Your task to perform on an android device: search for starred emails in the gmail app Image 0: 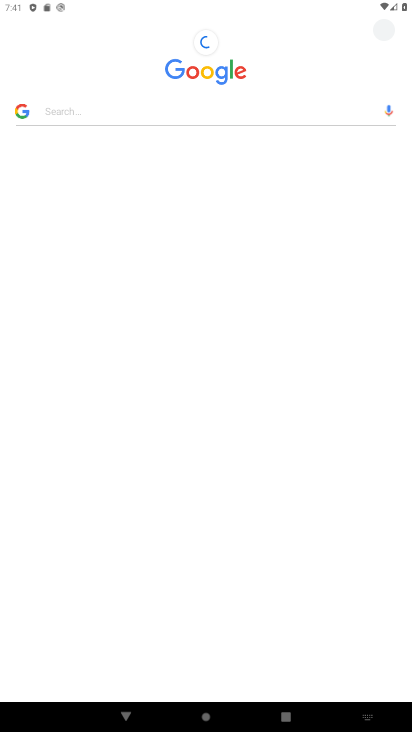
Step 0: press home button
Your task to perform on an android device: search for starred emails in the gmail app Image 1: 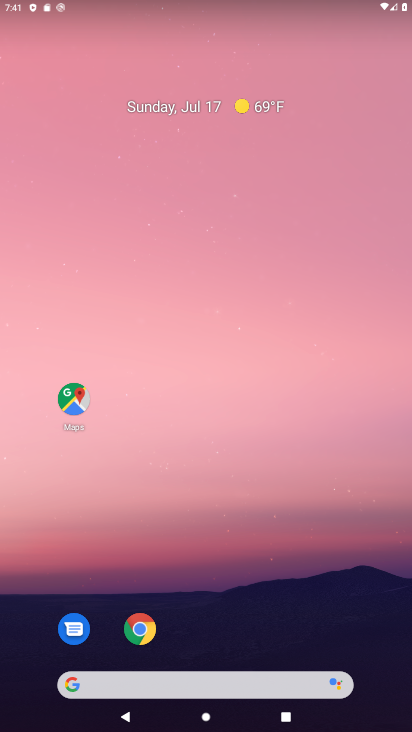
Step 1: drag from (299, 597) to (323, 168)
Your task to perform on an android device: search for starred emails in the gmail app Image 2: 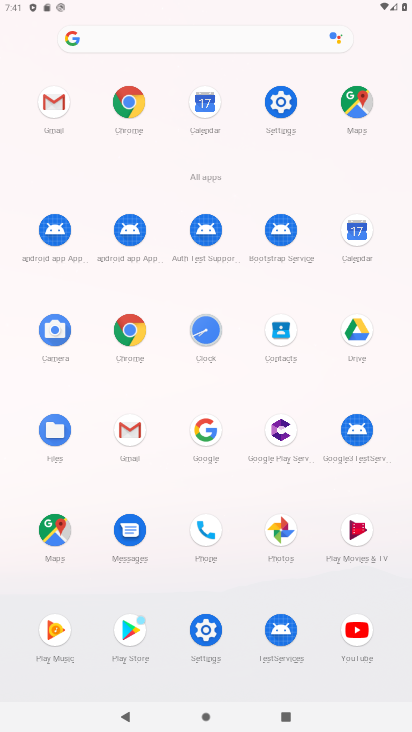
Step 2: click (127, 433)
Your task to perform on an android device: search for starred emails in the gmail app Image 3: 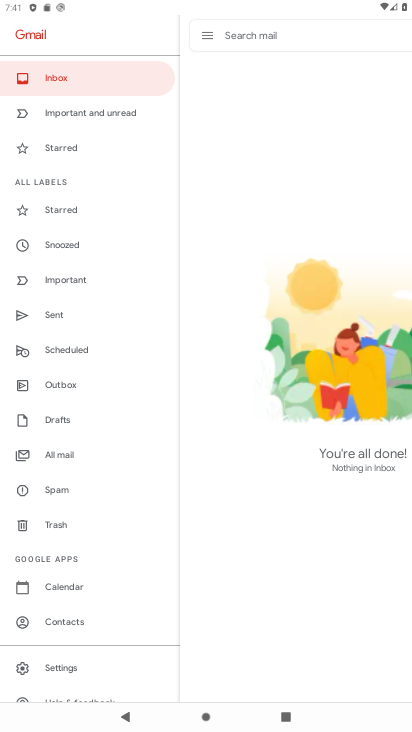
Step 3: click (58, 211)
Your task to perform on an android device: search for starred emails in the gmail app Image 4: 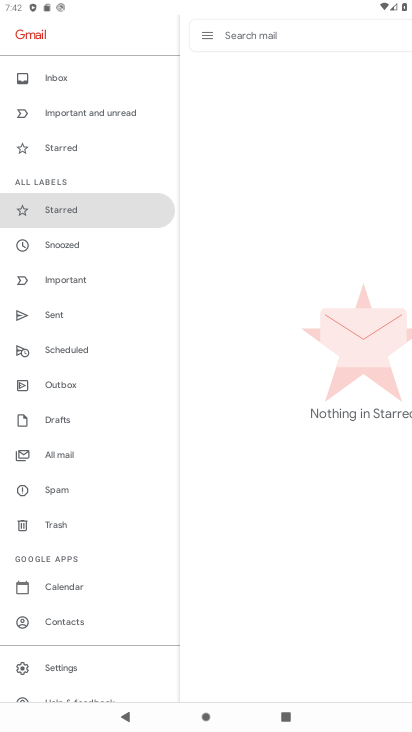
Step 4: task complete